Your task to perform on an android device: toggle sleep mode Image 0: 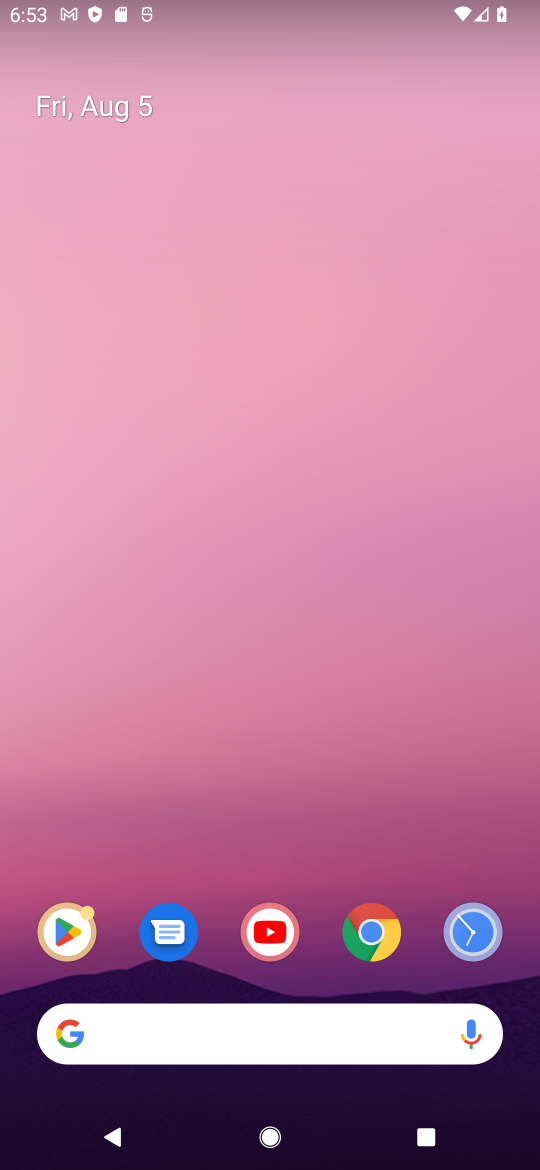
Step 0: drag from (365, 843) to (351, 92)
Your task to perform on an android device: toggle sleep mode Image 1: 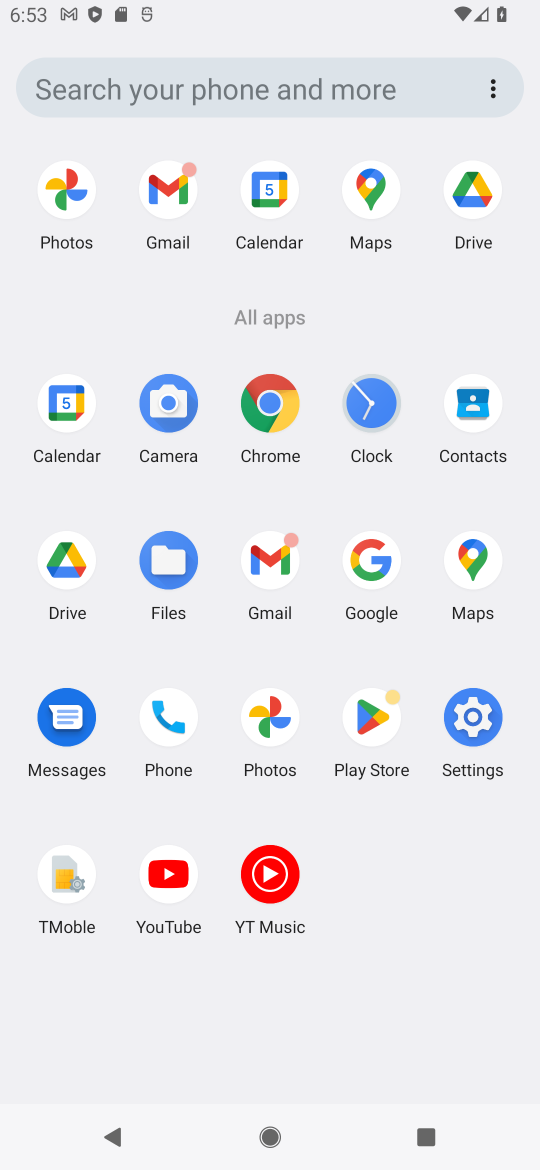
Step 1: click (484, 721)
Your task to perform on an android device: toggle sleep mode Image 2: 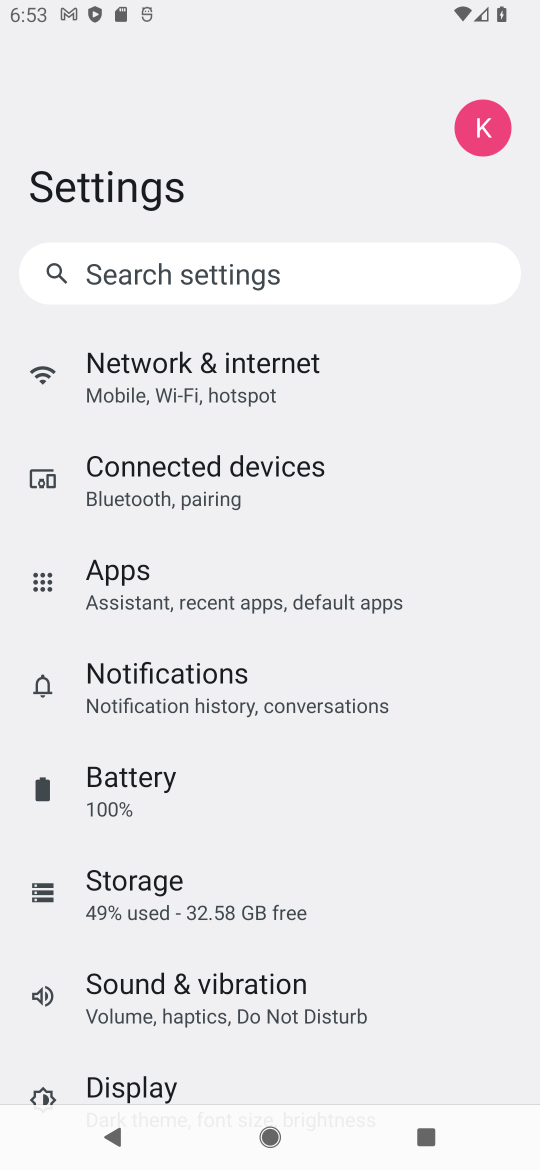
Step 2: click (137, 1083)
Your task to perform on an android device: toggle sleep mode Image 3: 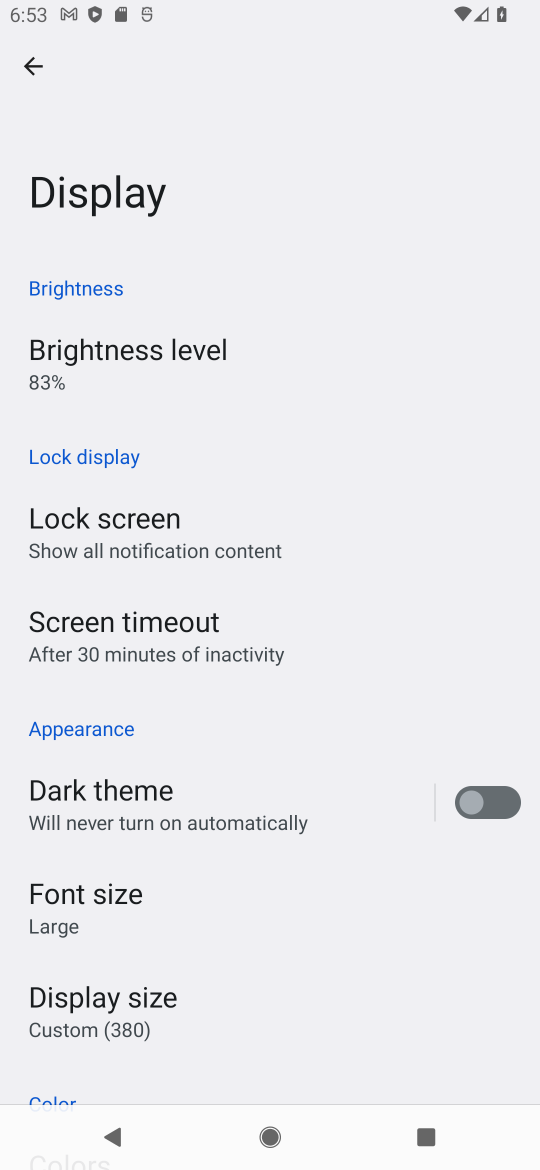
Step 3: drag from (265, 914) to (278, 689)
Your task to perform on an android device: toggle sleep mode Image 4: 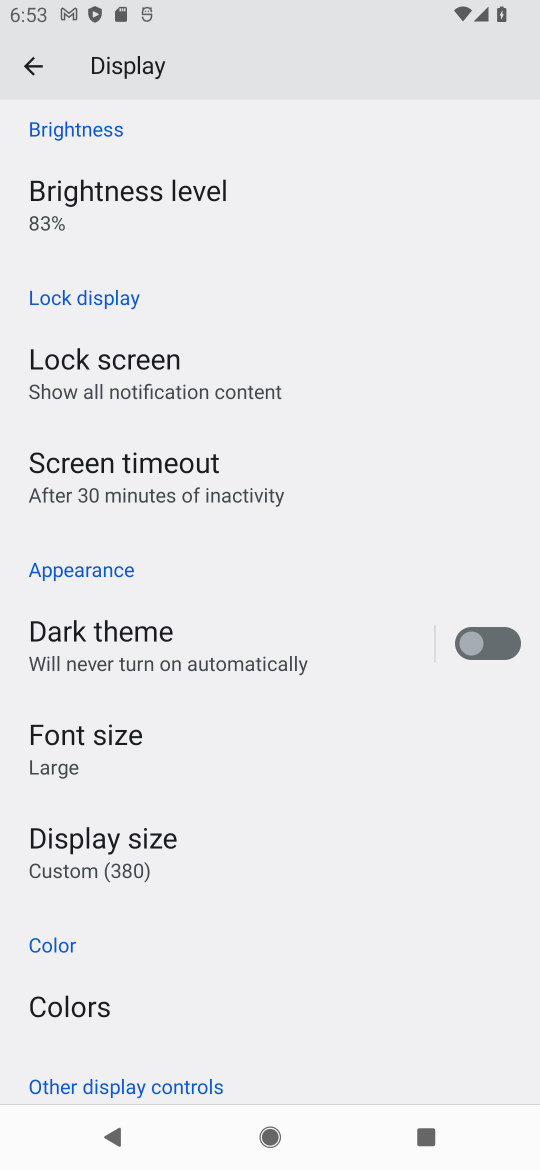
Step 4: click (109, 868)
Your task to perform on an android device: toggle sleep mode Image 5: 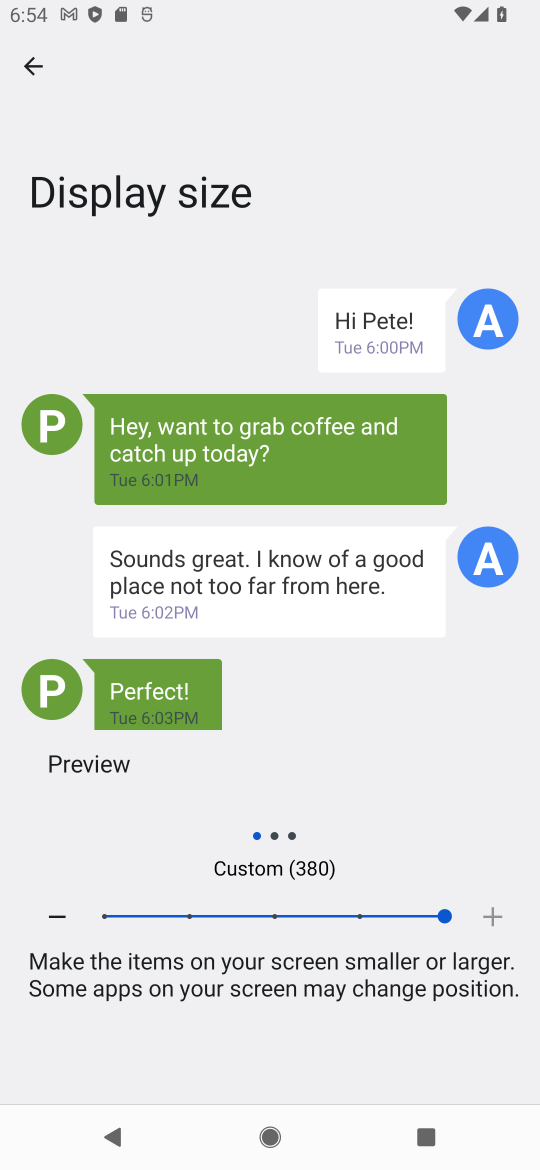
Step 5: click (43, 67)
Your task to perform on an android device: toggle sleep mode Image 6: 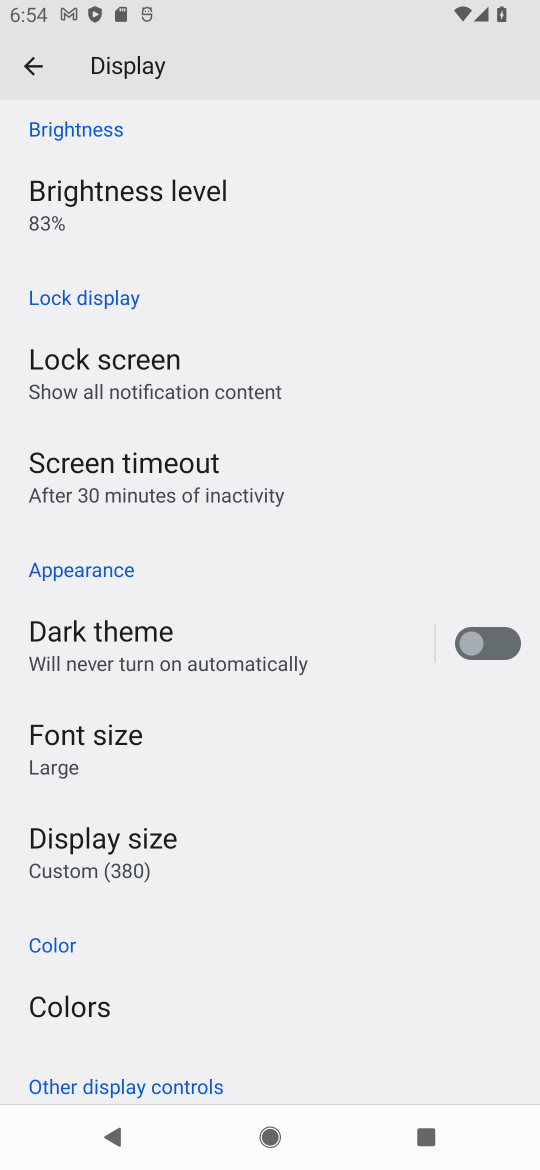
Step 6: click (168, 492)
Your task to perform on an android device: toggle sleep mode Image 7: 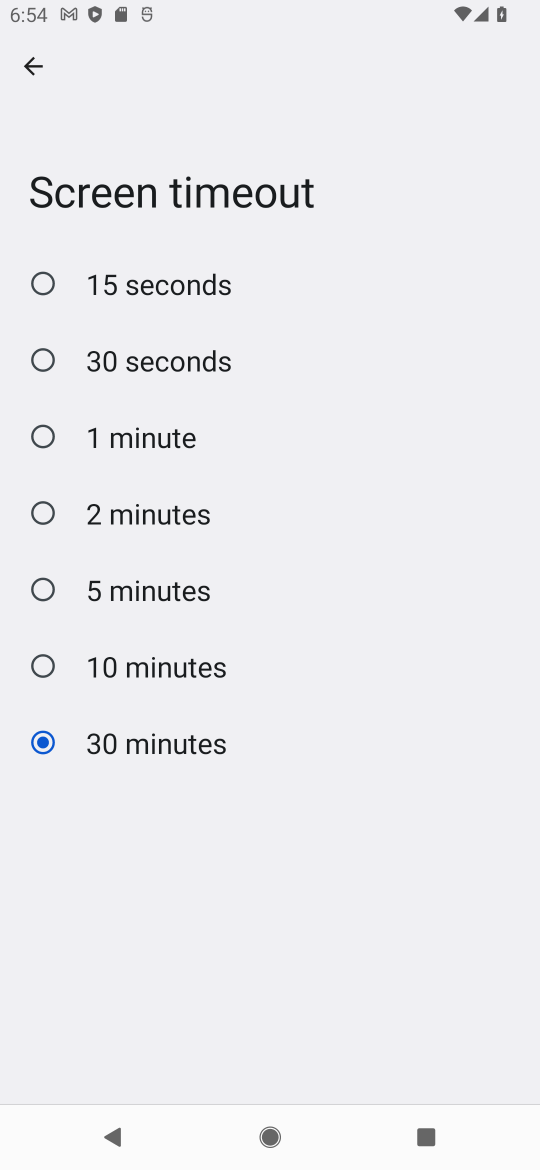
Step 7: click (148, 663)
Your task to perform on an android device: toggle sleep mode Image 8: 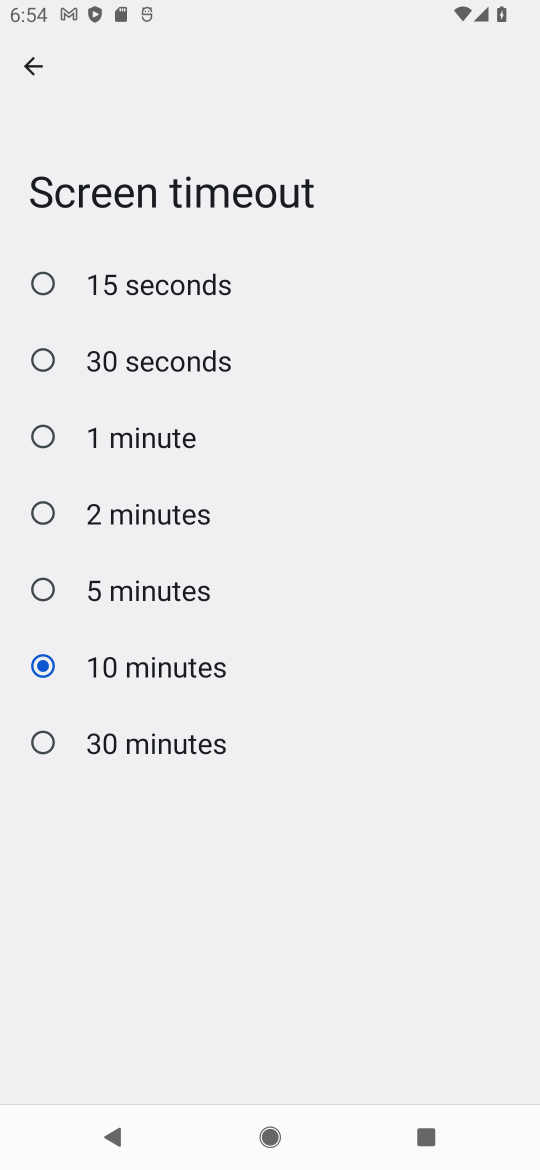
Step 8: task complete